Your task to perform on an android device: Go to Google Image 0: 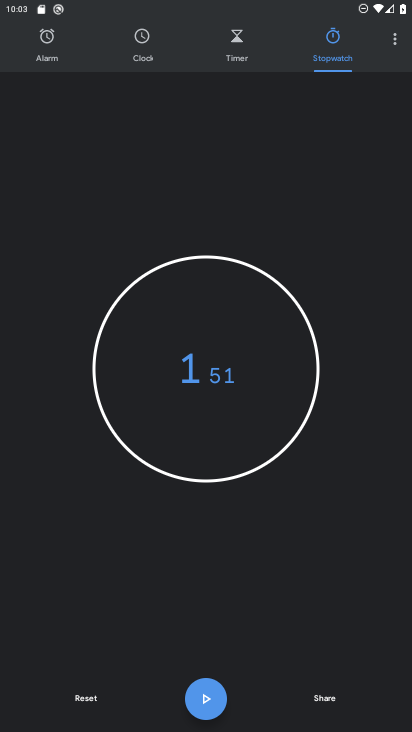
Step 0: press home button
Your task to perform on an android device: Go to Google Image 1: 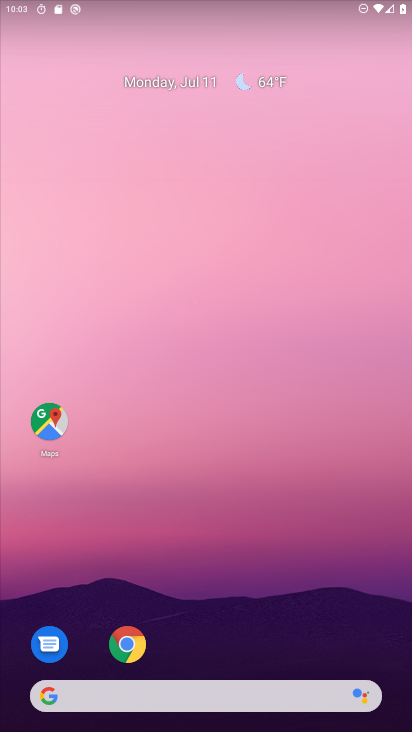
Step 1: drag from (247, 626) to (263, 78)
Your task to perform on an android device: Go to Google Image 2: 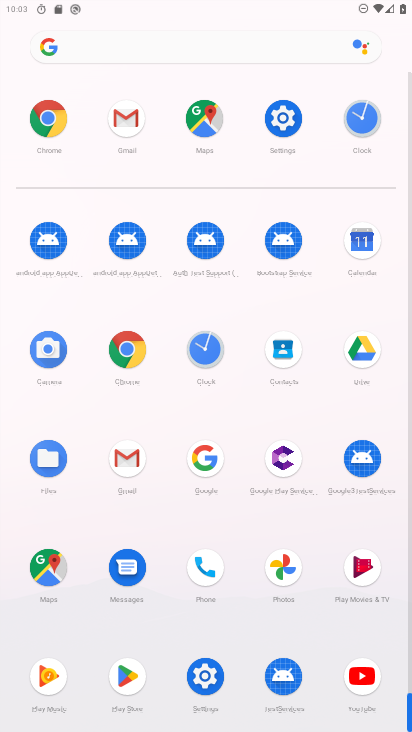
Step 2: click (212, 456)
Your task to perform on an android device: Go to Google Image 3: 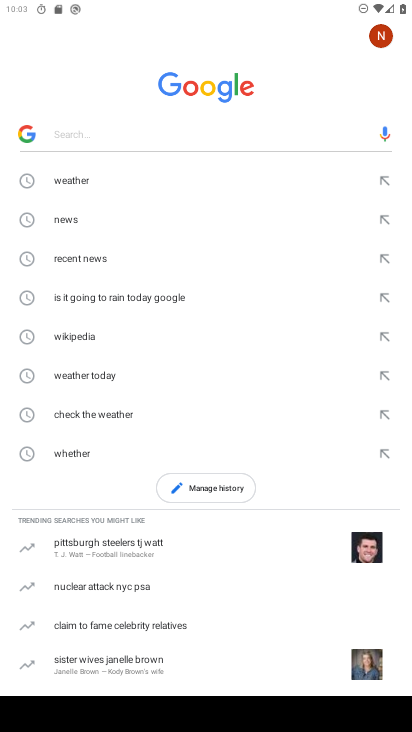
Step 3: task complete